Your task to perform on an android device: open chrome privacy settings Image 0: 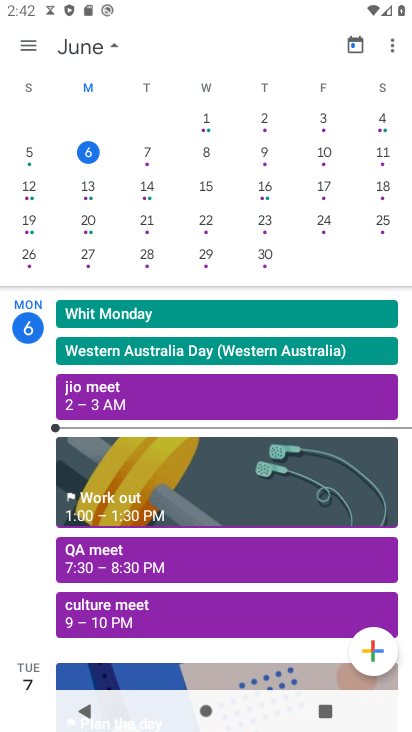
Step 0: press home button
Your task to perform on an android device: open chrome privacy settings Image 1: 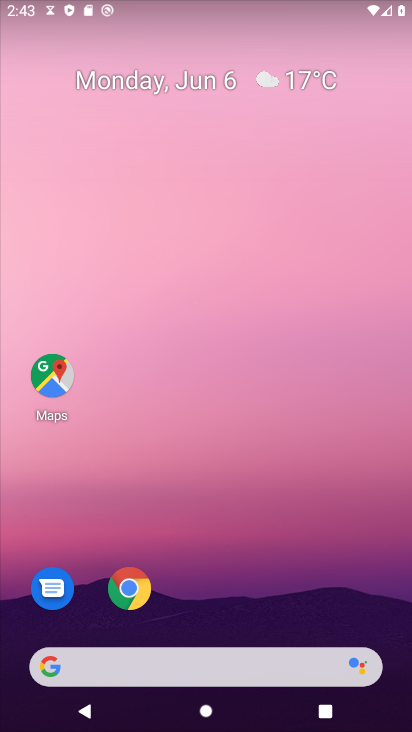
Step 1: click (118, 578)
Your task to perform on an android device: open chrome privacy settings Image 2: 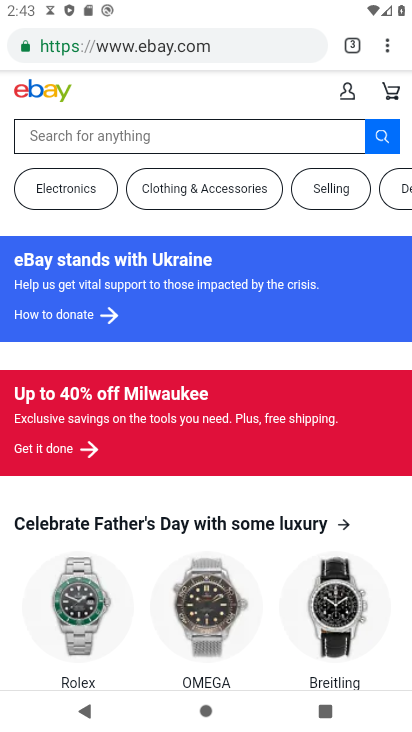
Step 2: drag from (387, 52) to (228, 556)
Your task to perform on an android device: open chrome privacy settings Image 3: 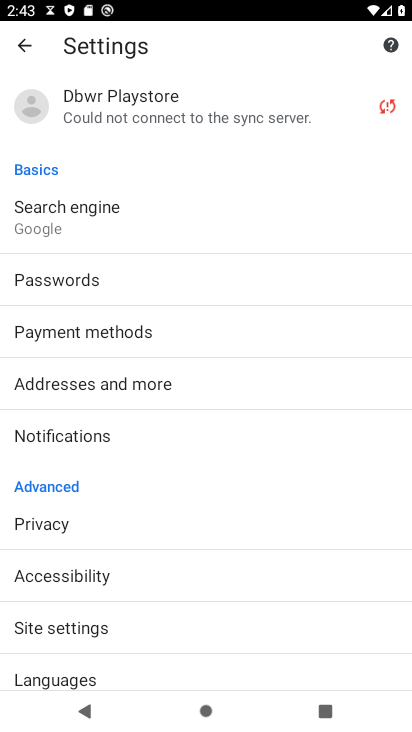
Step 3: click (97, 519)
Your task to perform on an android device: open chrome privacy settings Image 4: 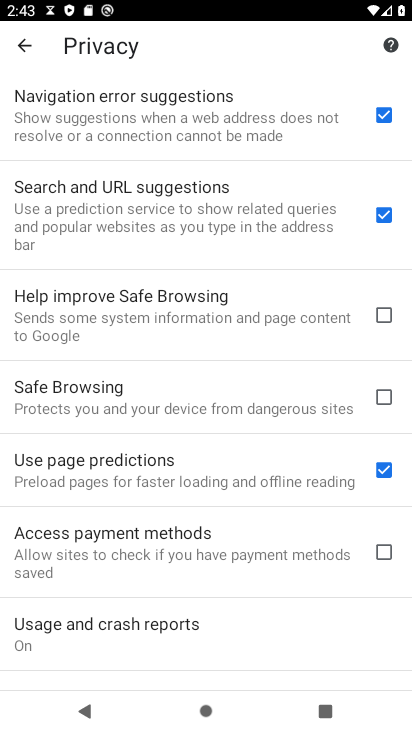
Step 4: task complete